Your task to perform on an android device: Go to Google maps Image 0: 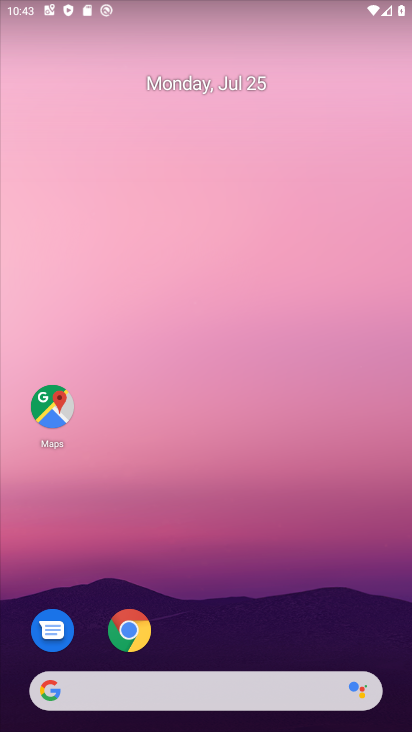
Step 0: press home button
Your task to perform on an android device: Go to Google maps Image 1: 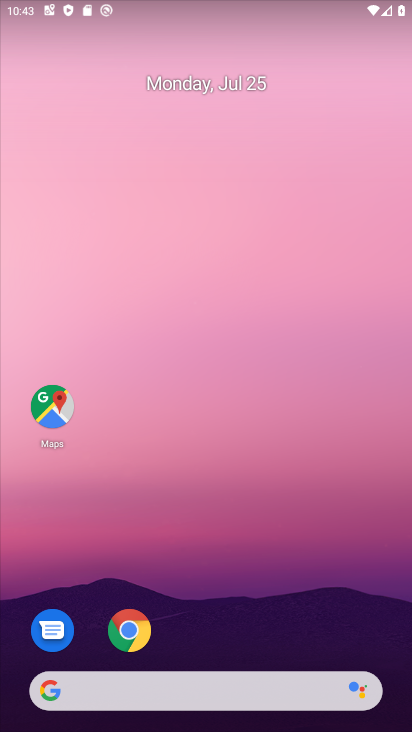
Step 1: drag from (361, 600) to (370, 130)
Your task to perform on an android device: Go to Google maps Image 2: 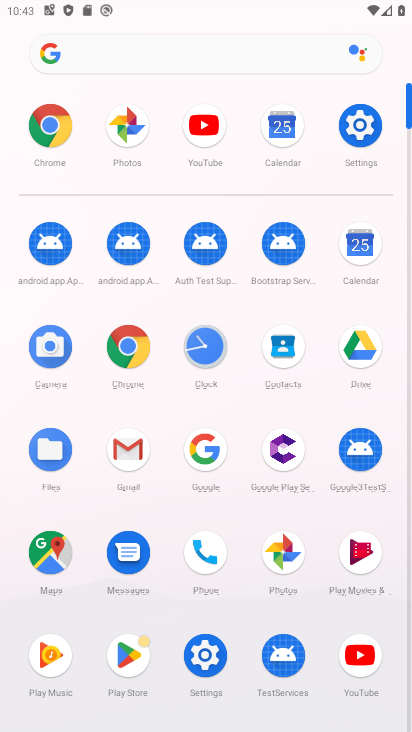
Step 2: click (51, 551)
Your task to perform on an android device: Go to Google maps Image 3: 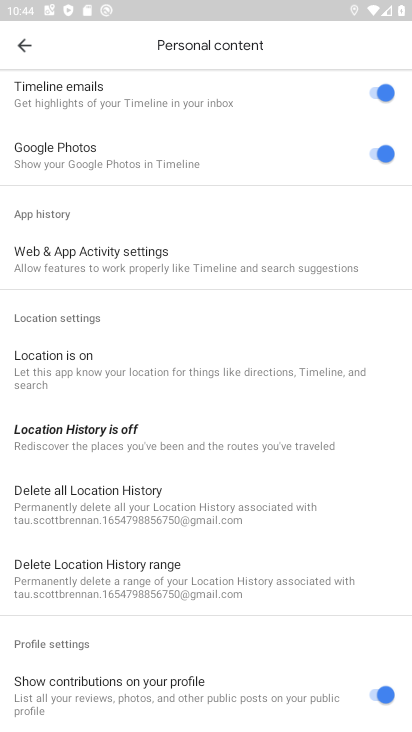
Step 3: task complete